Your task to perform on an android device: open wifi settings Image 0: 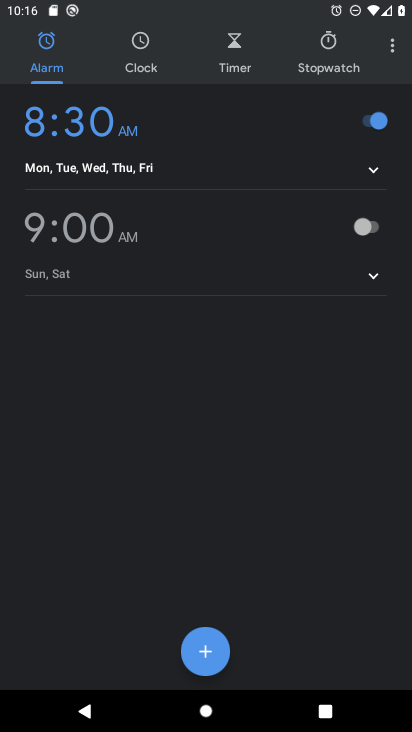
Step 0: press home button
Your task to perform on an android device: open wifi settings Image 1: 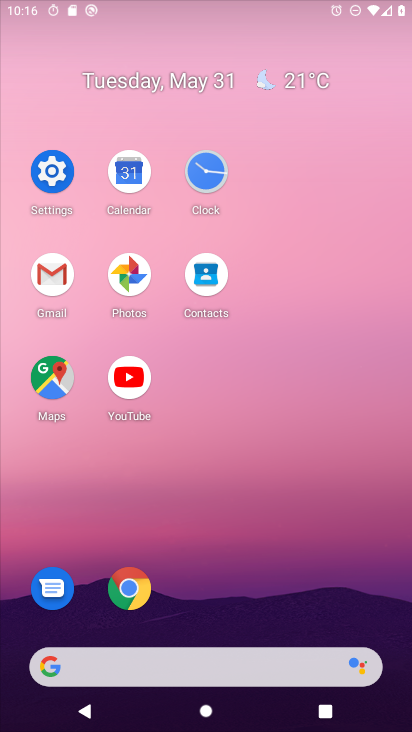
Step 1: click (56, 169)
Your task to perform on an android device: open wifi settings Image 2: 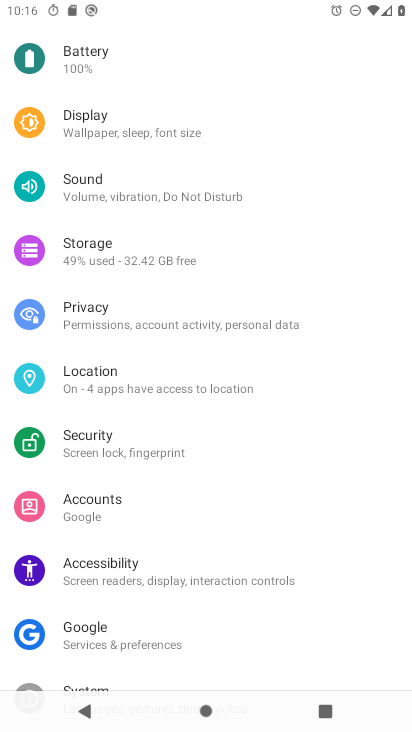
Step 2: drag from (239, 157) to (252, 577)
Your task to perform on an android device: open wifi settings Image 3: 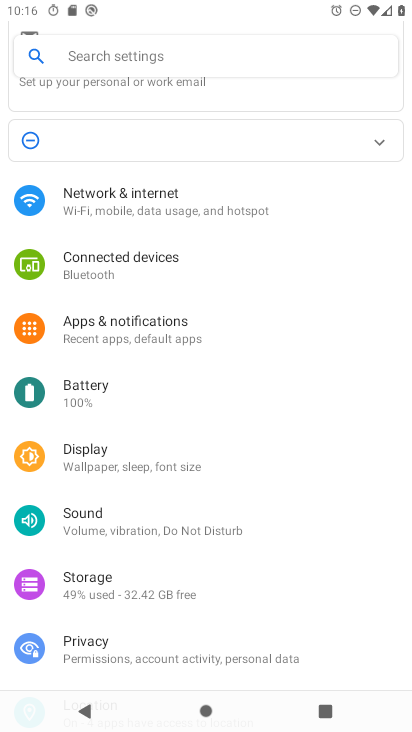
Step 3: click (190, 162)
Your task to perform on an android device: open wifi settings Image 4: 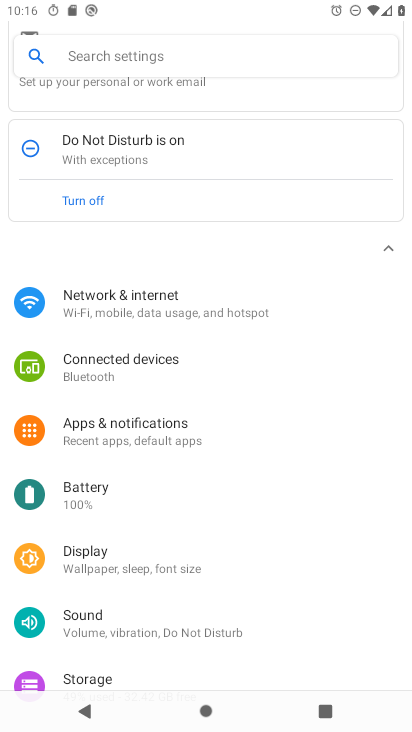
Step 4: click (188, 323)
Your task to perform on an android device: open wifi settings Image 5: 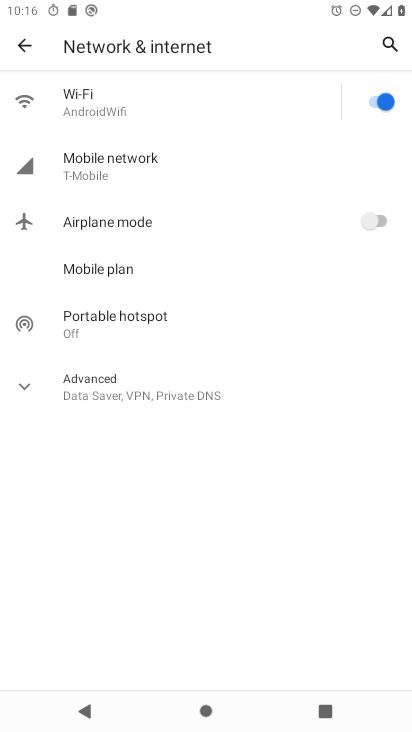
Step 5: click (181, 100)
Your task to perform on an android device: open wifi settings Image 6: 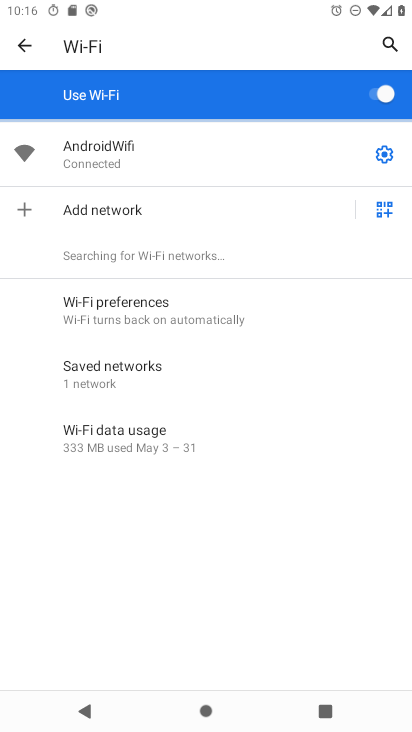
Step 6: click (387, 157)
Your task to perform on an android device: open wifi settings Image 7: 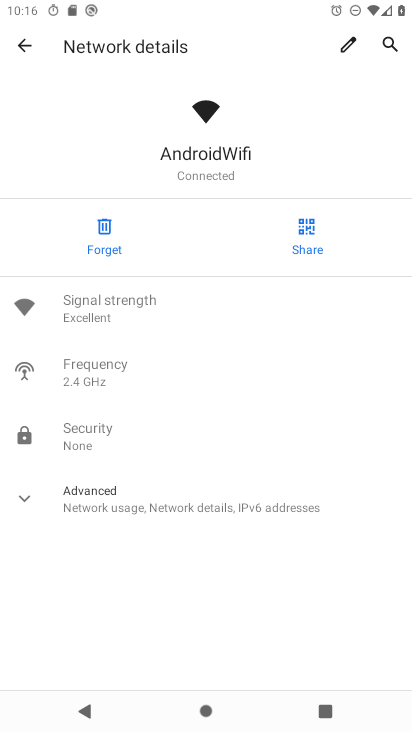
Step 7: task complete